Your task to perform on an android device: turn on notifications settings in the gmail app Image 0: 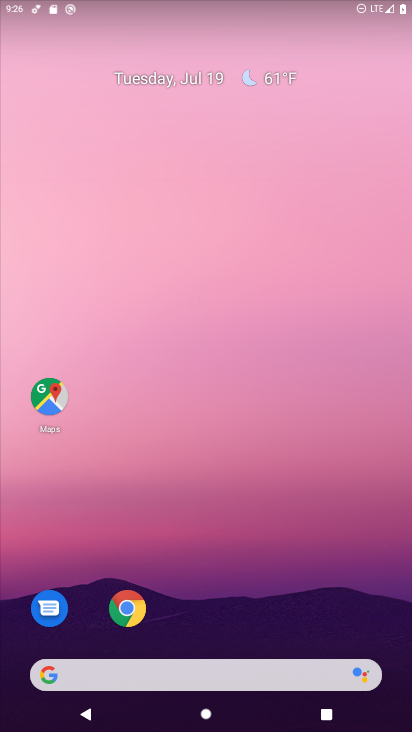
Step 0: drag from (181, 587) to (101, 72)
Your task to perform on an android device: turn on notifications settings in the gmail app Image 1: 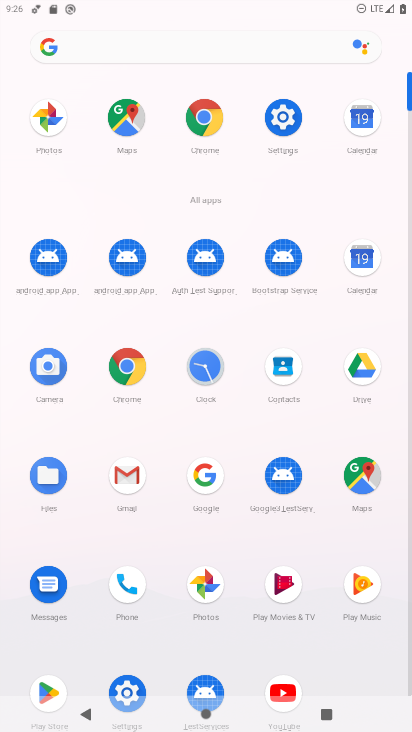
Step 1: click (123, 475)
Your task to perform on an android device: turn on notifications settings in the gmail app Image 2: 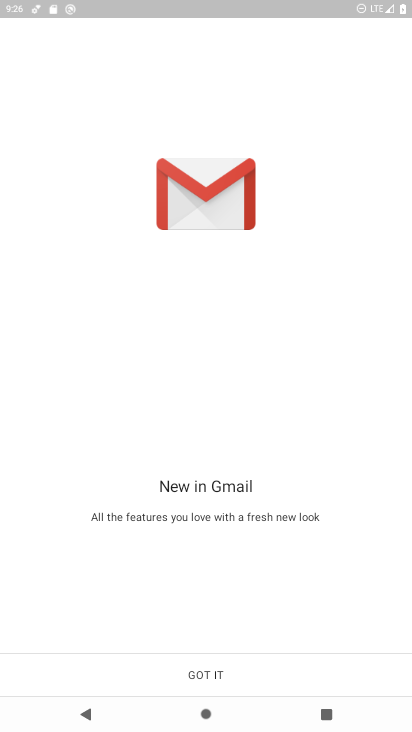
Step 2: click (208, 682)
Your task to perform on an android device: turn on notifications settings in the gmail app Image 3: 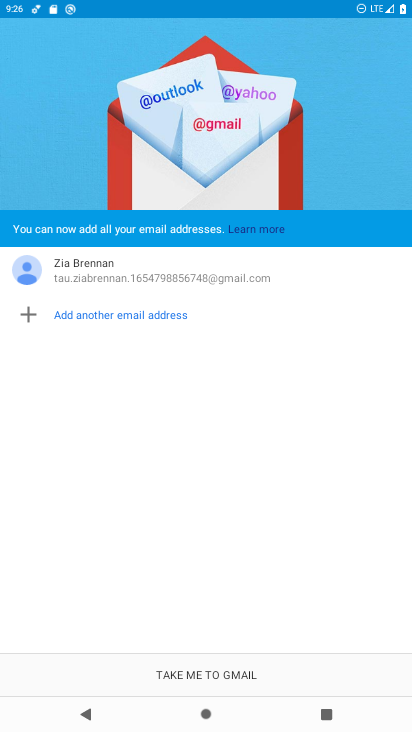
Step 3: click (218, 672)
Your task to perform on an android device: turn on notifications settings in the gmail app Image 4: 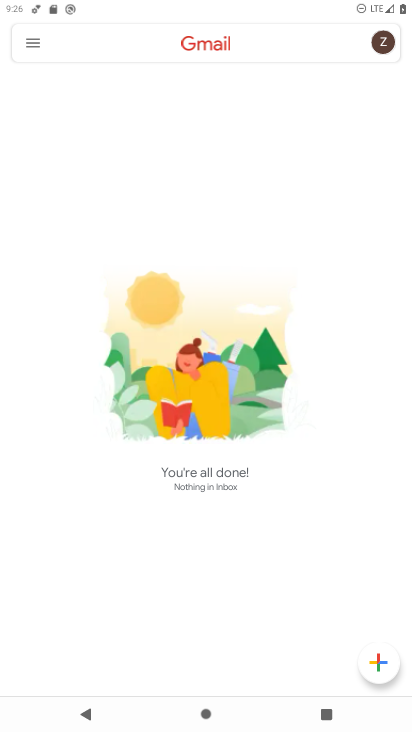
Step 4: click (31, 40)
Your task to perform on an android device: turn on notifications settings in the gmail app Image 5: 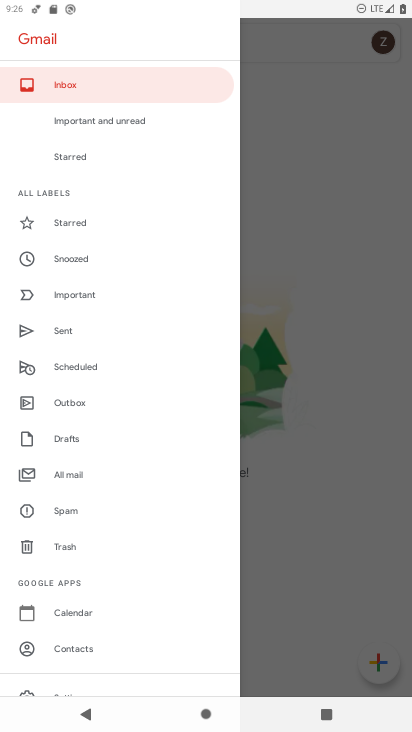
Step 5: drag from (119, 639) to (115, 309)
Your task to perform on an android device: turn on notifications settings in the gmail app Image 6: 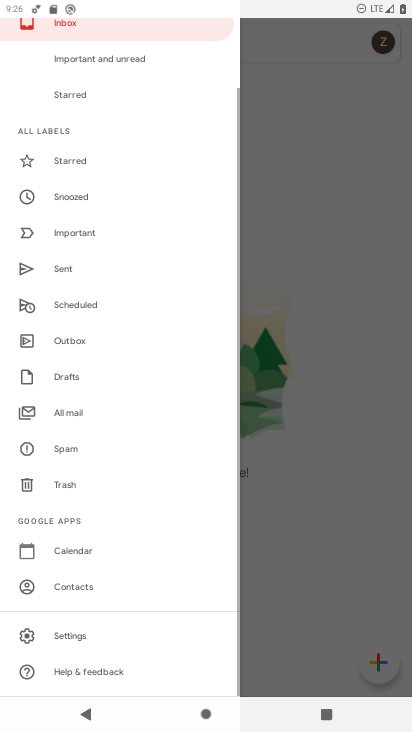
Step 6: click (62, 631)
Your task to perform on an android device: turn on notifications settings in the gmail app Image 7: 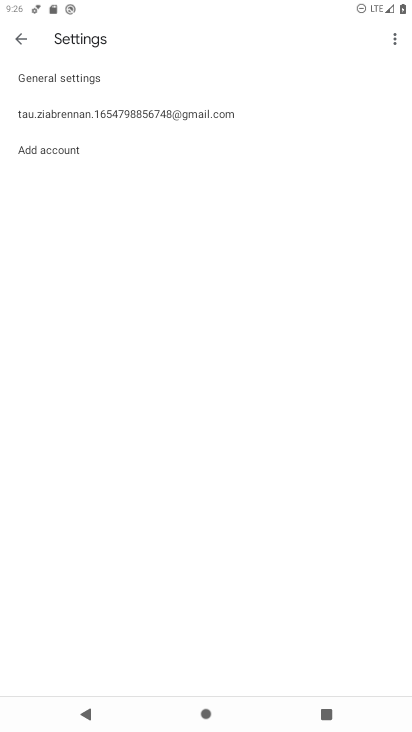
Step 7: click (67, 75)
Your task to perform on an android device: turn on notifications settings in the gmail app Image 8: 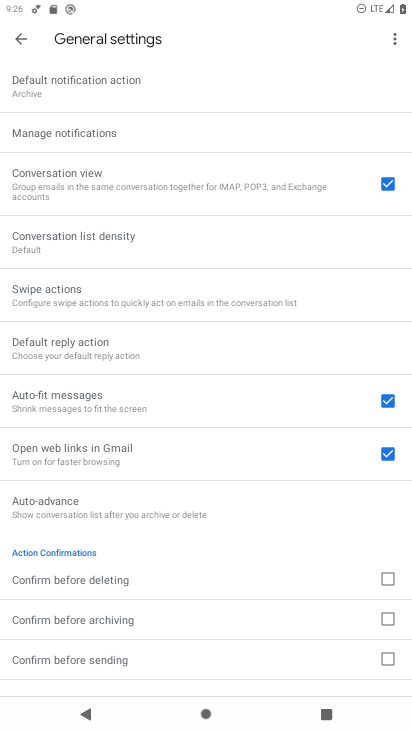
Step 8: click (82, 125)
Your task to perform on an android device: turn on notifications settings in the gmail app Image 9: 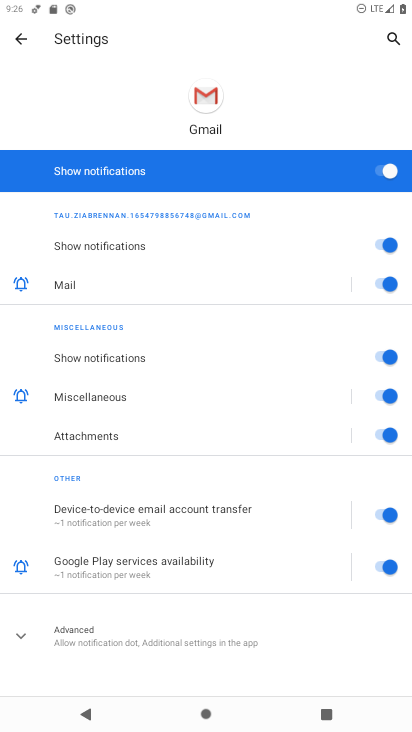
Step 9: task complete